Your task to perform on an android device: Turn off the flashlight Image 0: 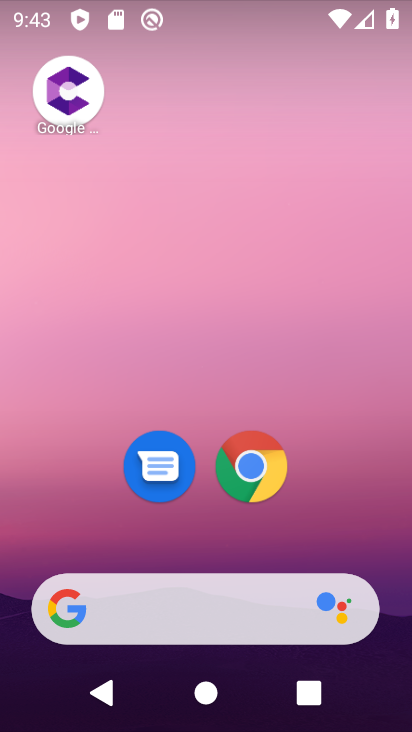
Step 0: drag from (328, 509) to (329, 149)
Your task to perform on an android device: Turn off the flashlight Image 1: 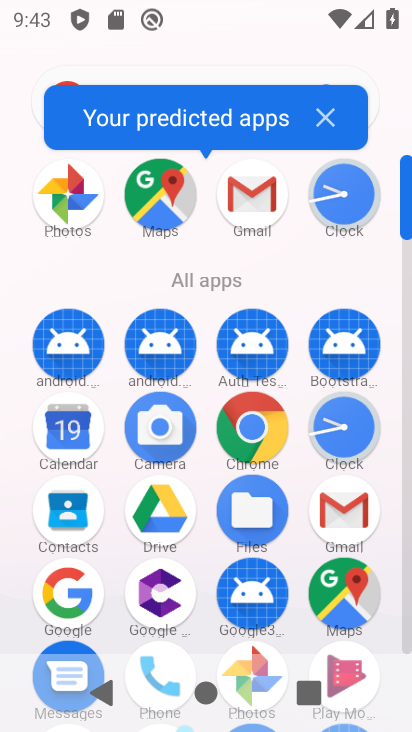
Step 1: drag from (199, 567) to (240, 260)
Your task to perform on an android device: Turn off the flashlight Image 2: 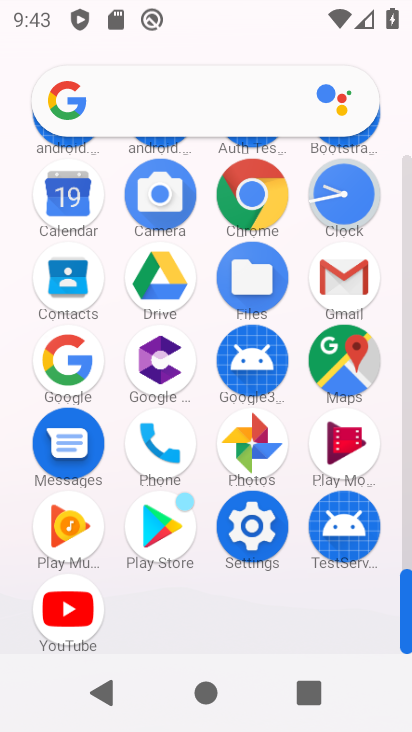
Step 2: click (240, 534)
Your task to perform on an android device: Turn off the flashlight Image 3: 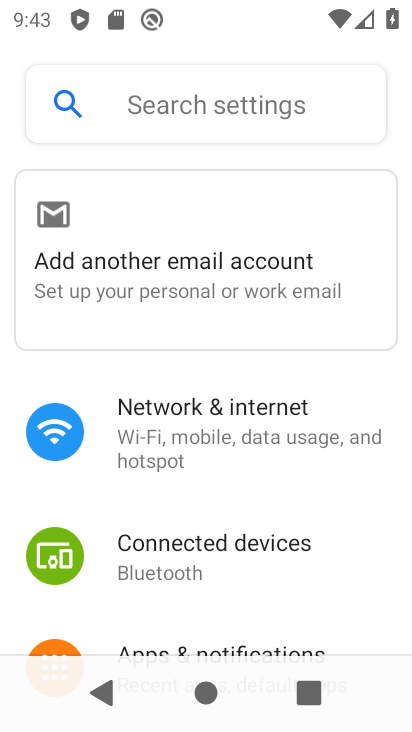
Step 3: task complete